Your task to perform on an android device: turn on priority inbox in the gmail app Image 0: 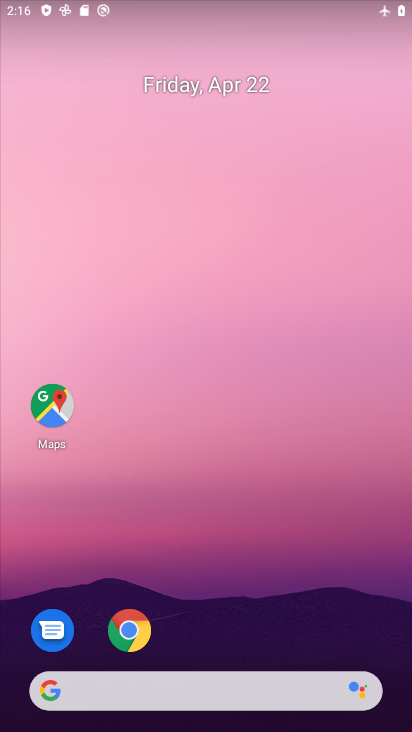
Step 0: drag from (353, 605) to (356, 186)
Your task to perform on an android device: turn on priority inbox in the gmail app Image 1: 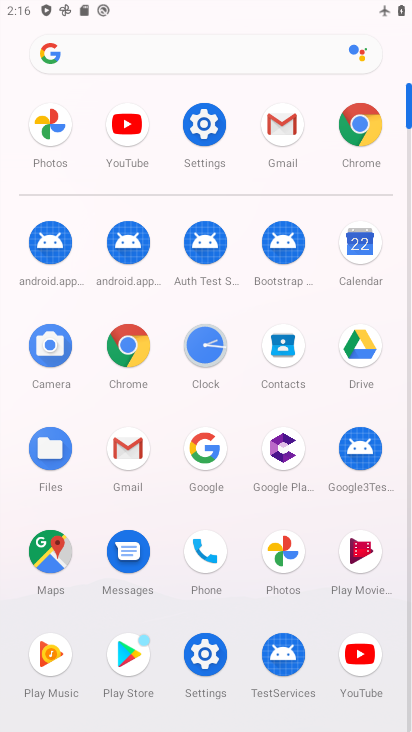
Step 1: click (283, 131)
Your task to perform on an android device: turn on priority inbox in the gmail app Image 2: 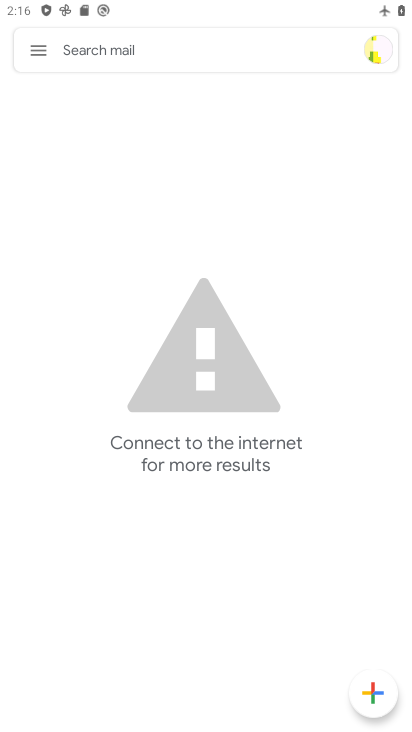
Step 2: click (35, 47)
Your task to perform on an android device: turn on priority inbox in the gmail app Image 3: 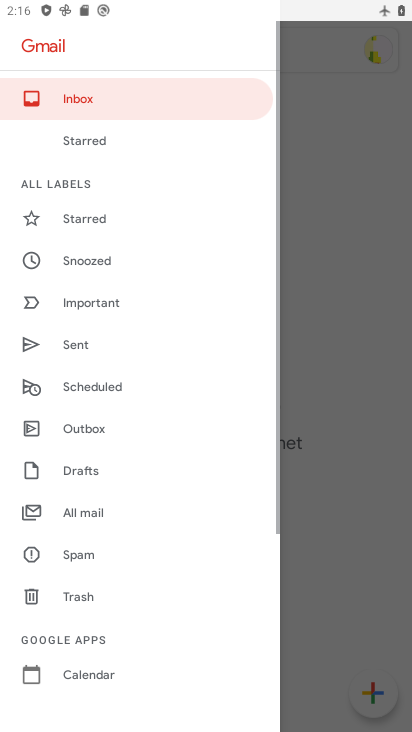
Step 3: drag from (123, 653) to (162, 275)
Your task to perform on an android device: turn on priority inbox in the gmail app Image 4: 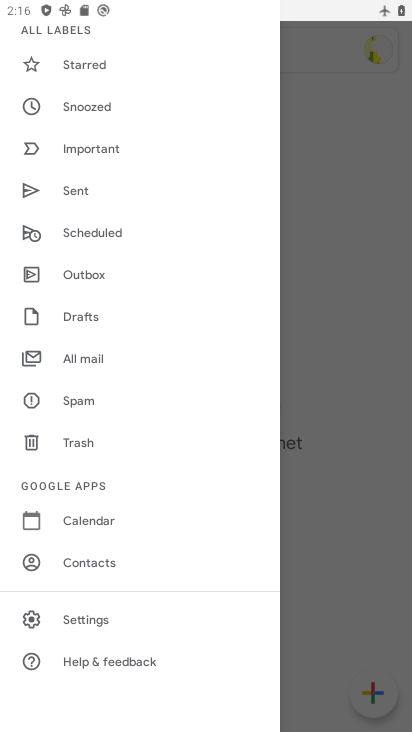
Step 4: click (105, 616)
Your task to perform on an android device: turn on priority inbox in the gmail app Image 5: 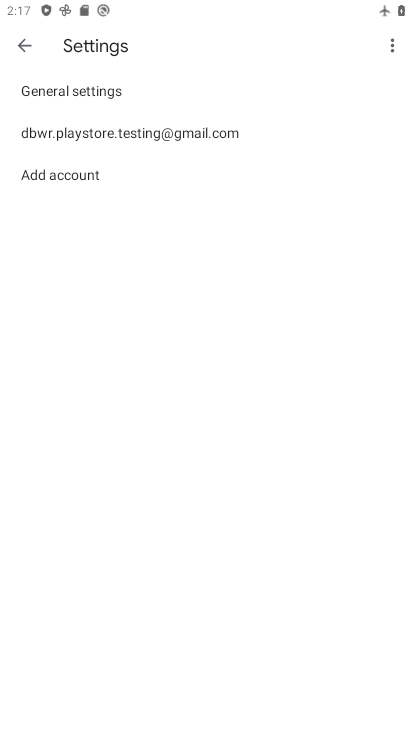
Step 5: click (205, 129)
Your task to perform on an android device: turn on priority inbox in the gmail app Image 6: 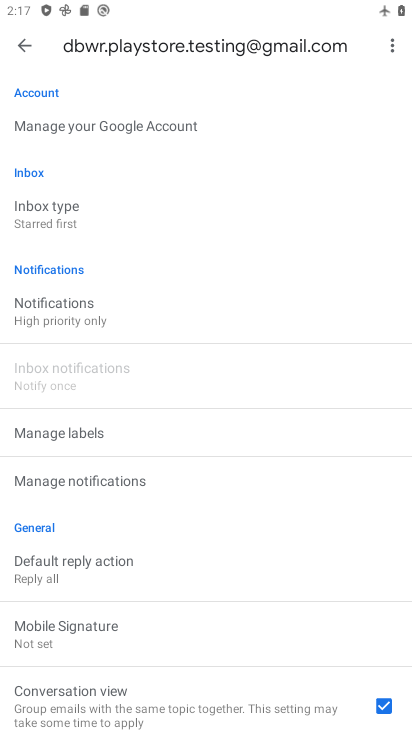
Step 6: drag from (221, 628) to (224, 319)
Your task to perform on an android device: turn on priority inbox in the gmail app Image 7: 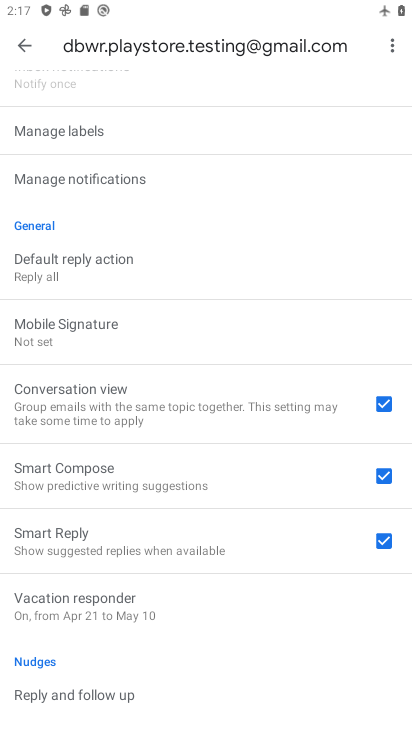
Step 7: drag from (206, 130) to (213, 539)
Your task to perform on an android device: turn on priority inbox in the gmail app Image 8: 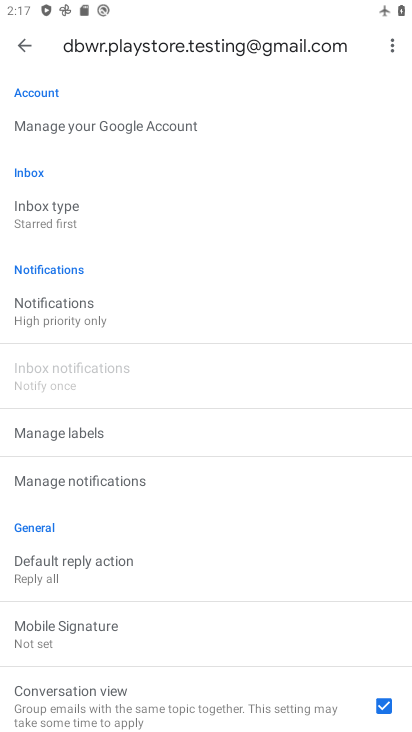
Step 8: click (63, 225)
Your task to perform on an android device: turn on priority inbox in the gmail app Image 9: 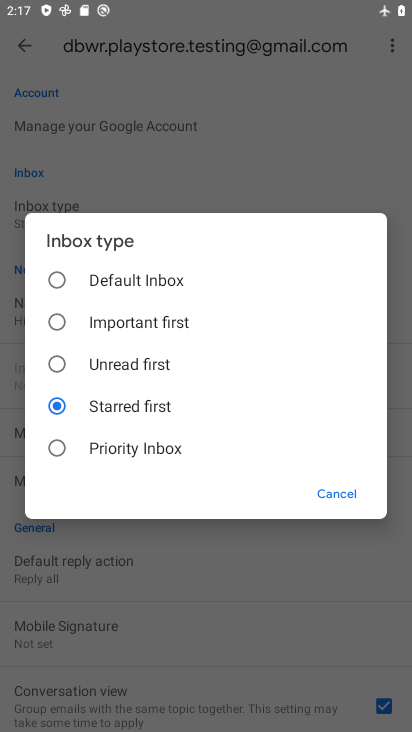
Step 9: click (100, 444)
Your task to perform on an android device: turn on priority inbox in the gmail app Image 10: 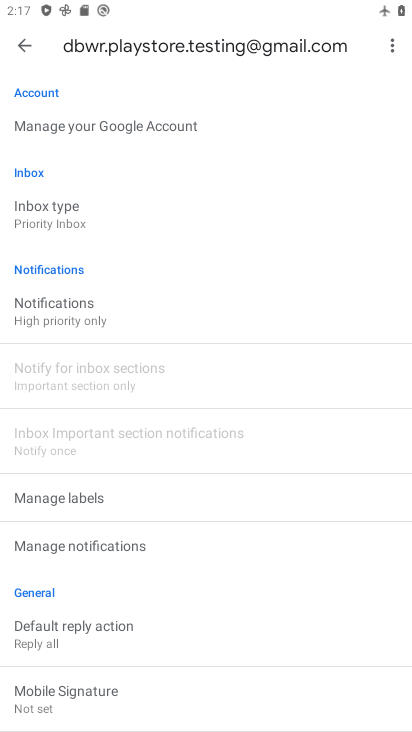
Step 10: task complete